Your task to perform on an android device: Open Youtube and go to the subscriptions tab Image 0: 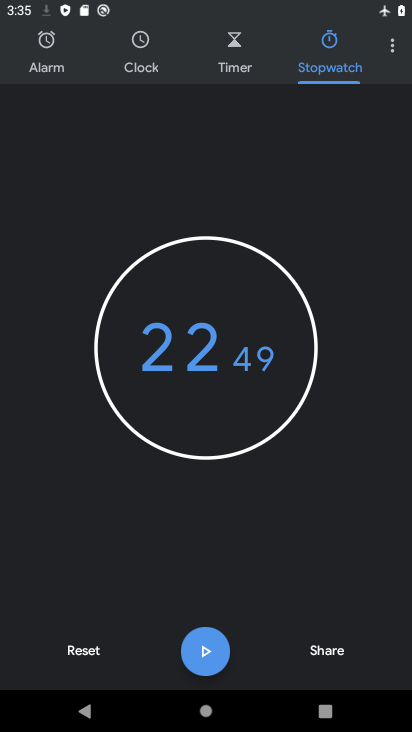
Step 0: press back button
Your task to perform on an android device: Open Youtube and go to the subscriptions tab Image 1: 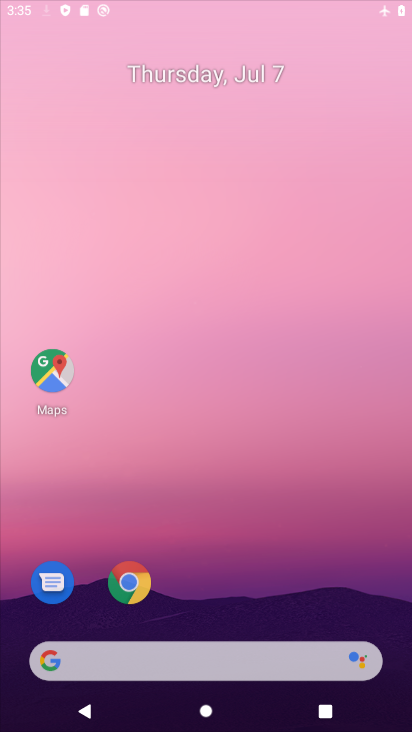
Step 1: press back button
Your task to perform on an android device: Open Youtube and go to the subscriptions tab Image 2: 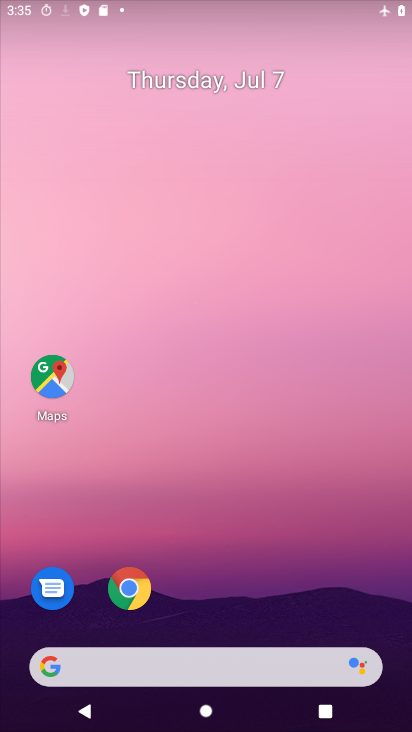
Step 2: press back button
Your task to perform on an android device: Open Youtube and go to the subscriptions tab Image 3: 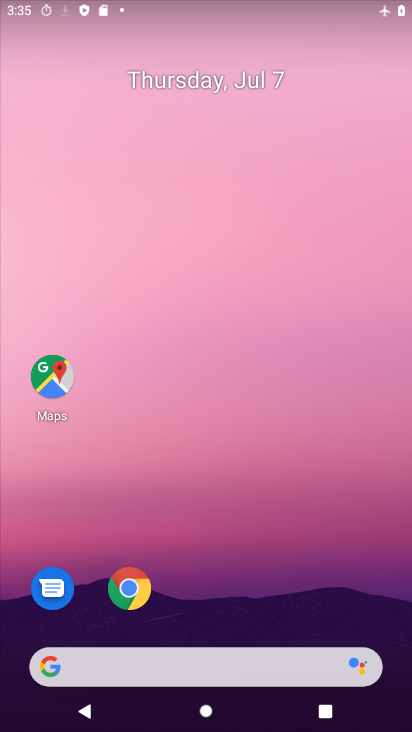
Step 3: drag from (221, 511) to (116, 31)
Your task to perform on an android device: Open Youtube and go to the subscriptions tab Image 4: 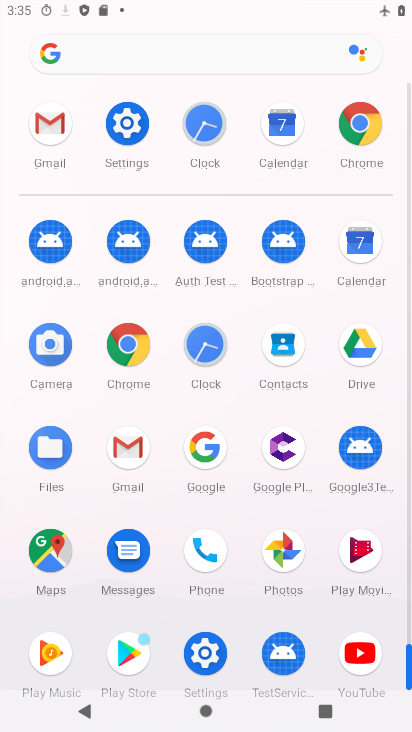
Step 4: click (357, 658)
Your task to perform on an android device: Open Youtube and go to the subscriptions tab Image 5: 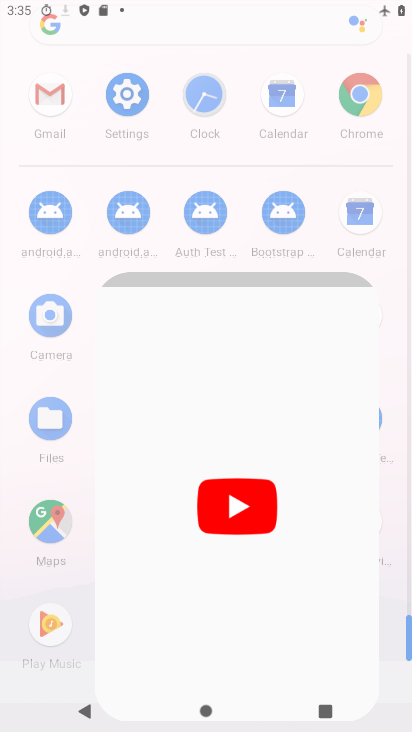
Step 5: click (359, 636)
Your task to perform on an android device: Open Youtube and go to the subscriptions tab Image 6: 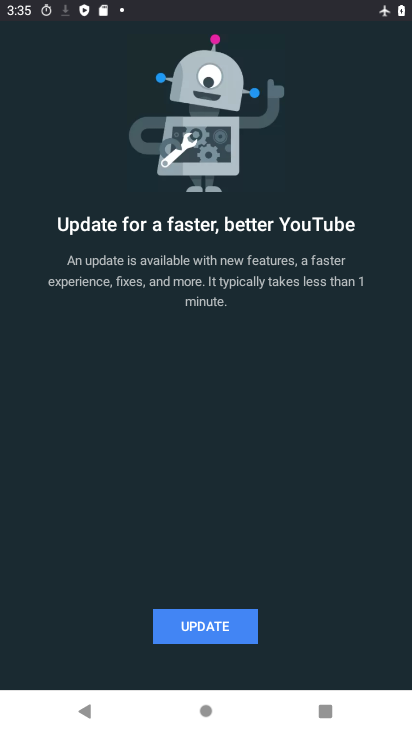
Step 6: click (216, 634)
Your task to perform on an android device: Open Youtube and go to the subscriptions tab Image 7: 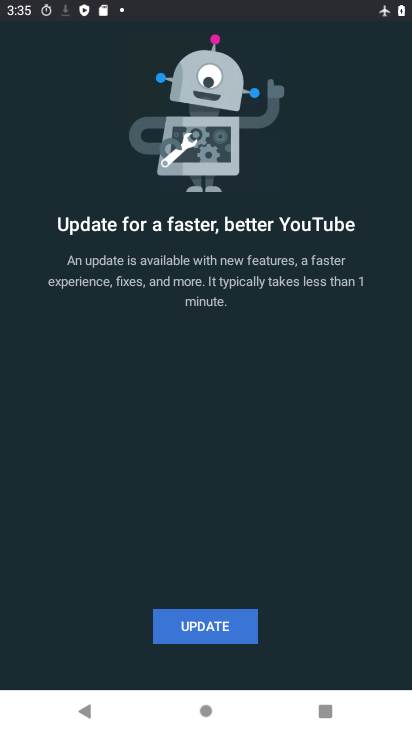
Step 7: click (216, 634)
Your task to perform on an android device: Open Youtube and go to the subscriptions tab Image 8: 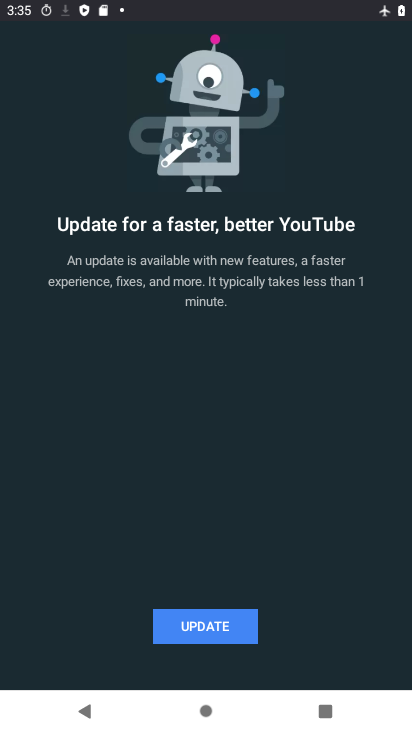
Step 8: click (216, 634)
Your task to perform on an android device: Open Youtube and go to the subscriptions tab Image 9: 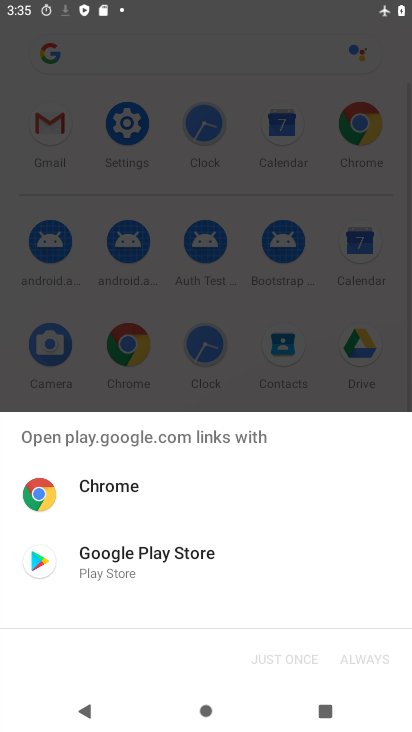
Step 9: click (218, 632)
Your task to perform on an android device: Open Youtube and go to the subscriptions tab Image 10: 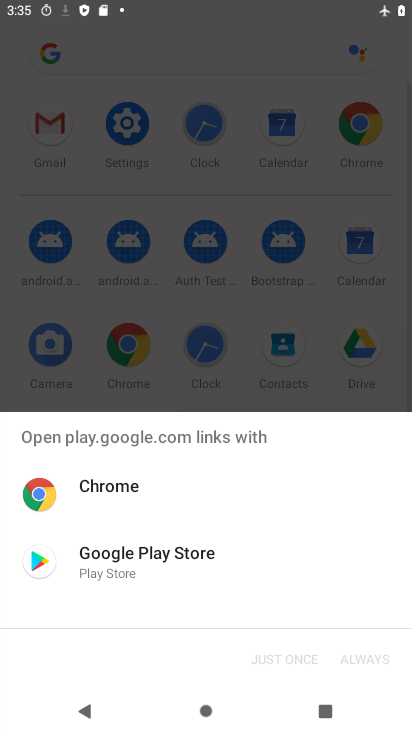
Step 10: click (126, 547)
Your task to perform on an android device: Open Youtube and go to the subscriptions tab Image 11: 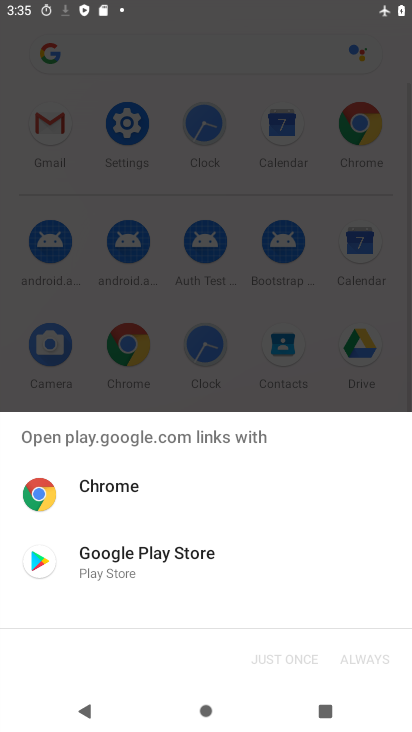
Step 11: click (126, 547)
Your task to perform on an android device: Open Youtube and go to the subscriptions tab Image 12: 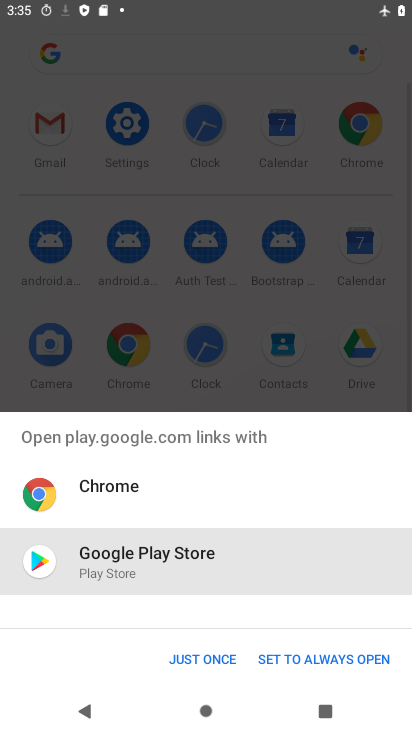
Step 12: click (124, 550)
Your task to perform on an android device: Open Youtube and go to the subscriptions tab Image 13: 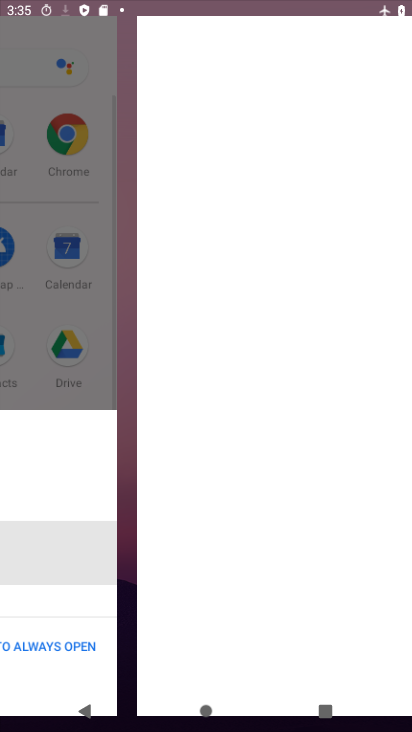
Step 13: click (346, 651)
Your task to perform on an android device: Open Youtube and go to the subscriptions tab Image 14: 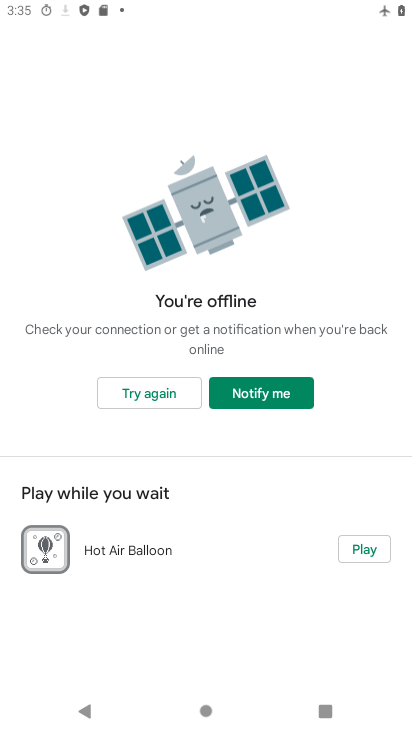
Step 14: task complete